Your task to perform on an android device: Go to CNN.com Image 0: 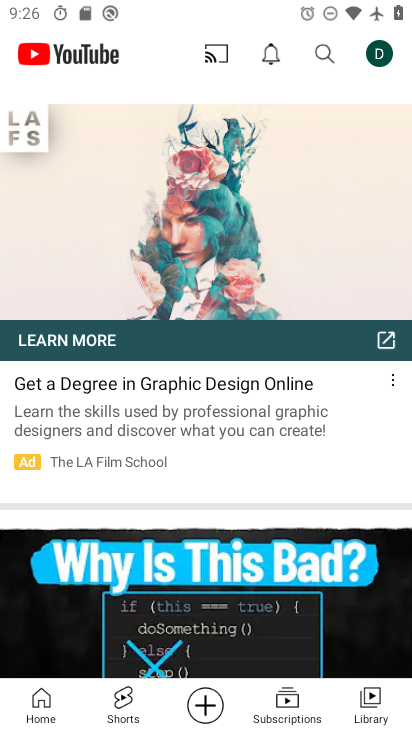
Step 0: press home button
Your task to perform on an android device: Go to CNN.com Image 1: 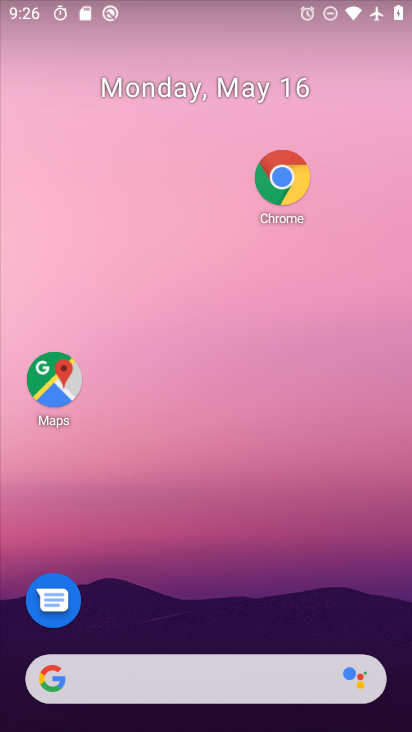
Step 1: click (290, 183)
Your task to perform on an android device: Go to CNN.com Image 2: 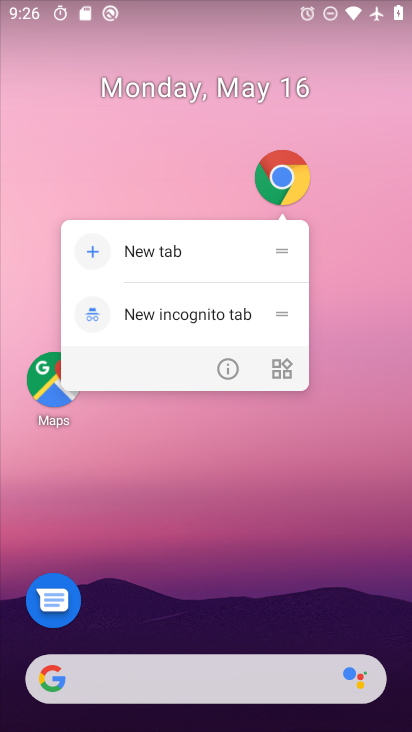
Step 2: click (290, 184)
Your task to perform on an android device: Go to CNN.com Image 3: 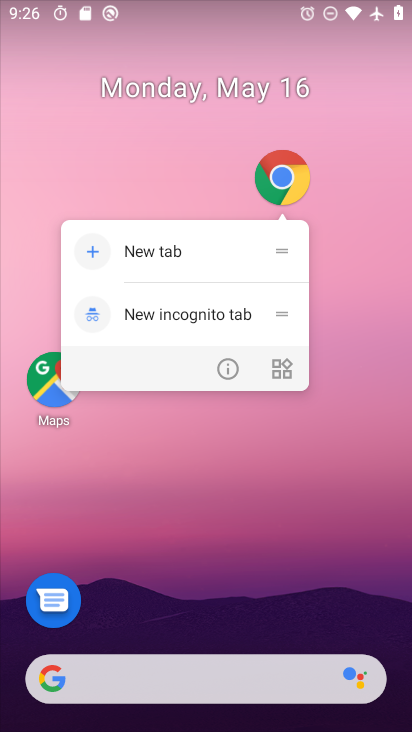
Step 3: click (287, 170)
Your task to perform on an android device: Go to CNN.com Image 4: 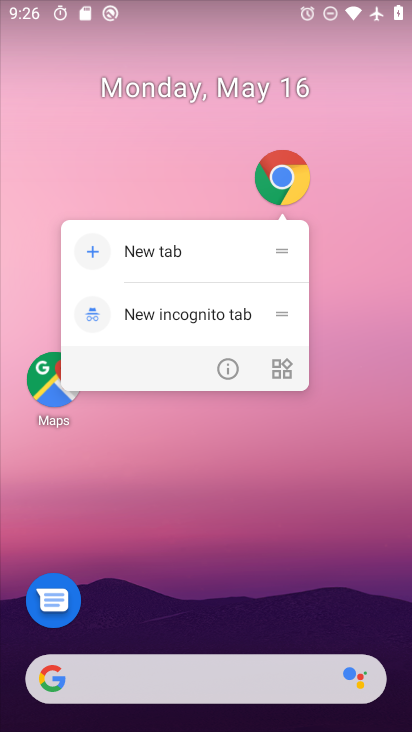
Step 4: click (296, 185)
Your task to perform on an android device: Go to CNN.com Image 5: 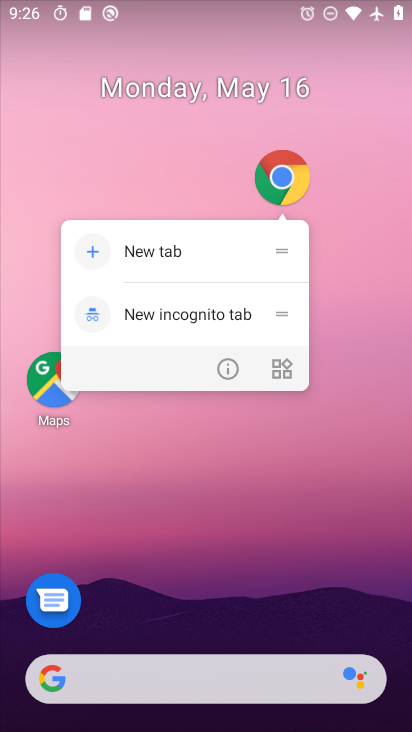
Step 5: click (286, 173)
Your task to perform on an android device: Go to CNN.com Image 6: 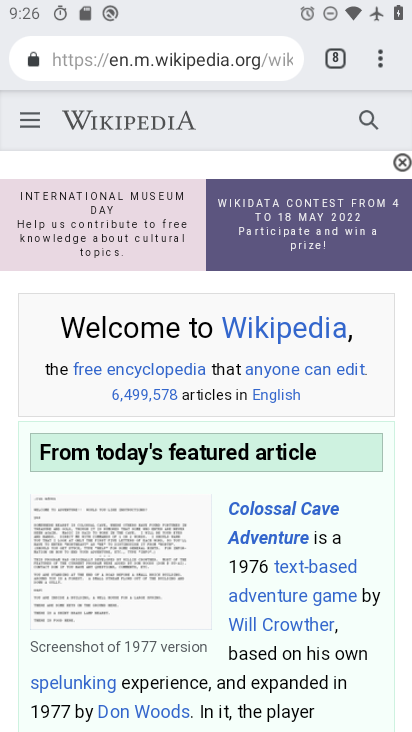
Step 6: drag from (386, 59) to (329, 111)
Your task to perform on an android device: Go to CNN.com Image 7: 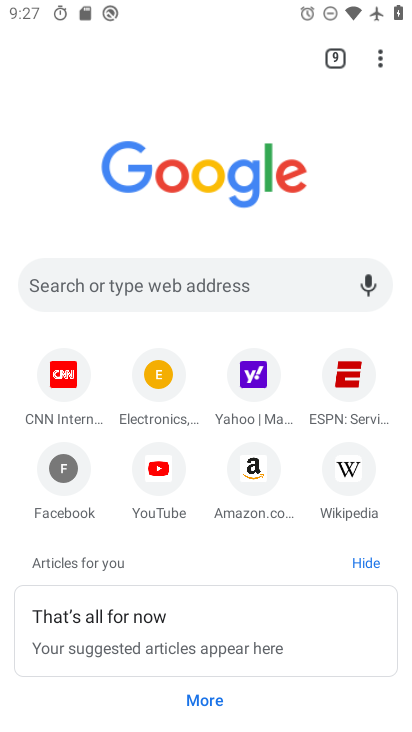
Step 7: click (66, 383)
Your task to perform on an android device: Go to CNN.com Image 8: 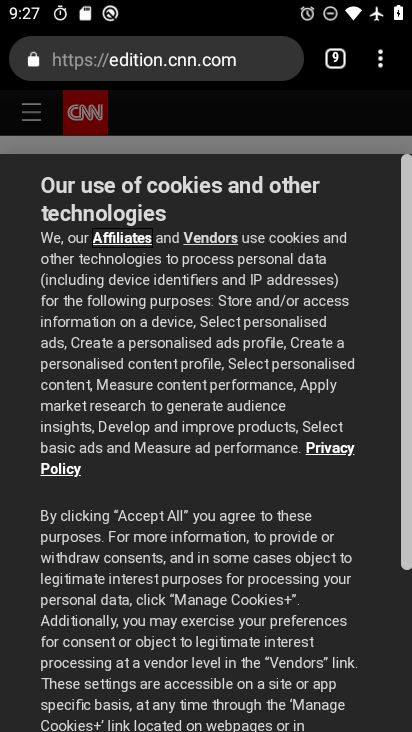
Step 8: drag from (197, 675) to (274, 234)
Your task to perform on an android device: Go to CNN.com Image 9: 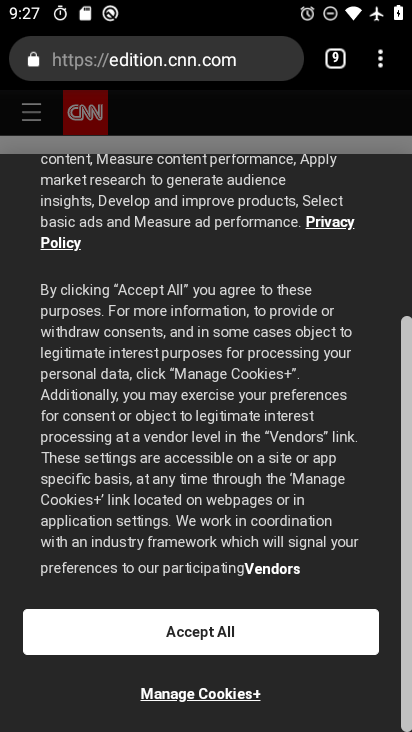
Step 9: click (165, 632)
Your task to perform on an android device: Go to CNN.com Image 10: 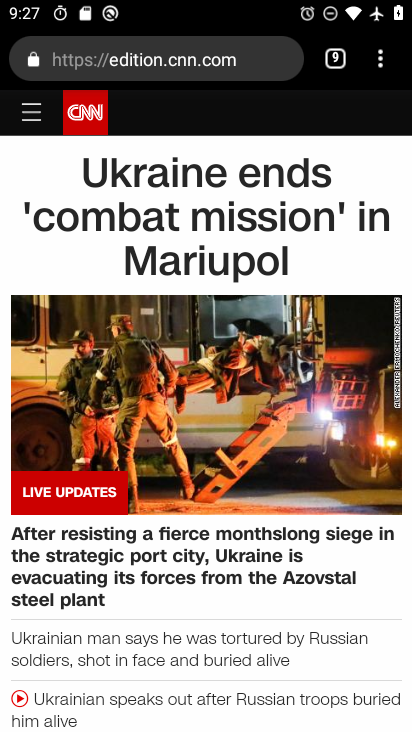
Step 10: task complete